Your task to perform on an android device: Toggle the flashlight Image 0: 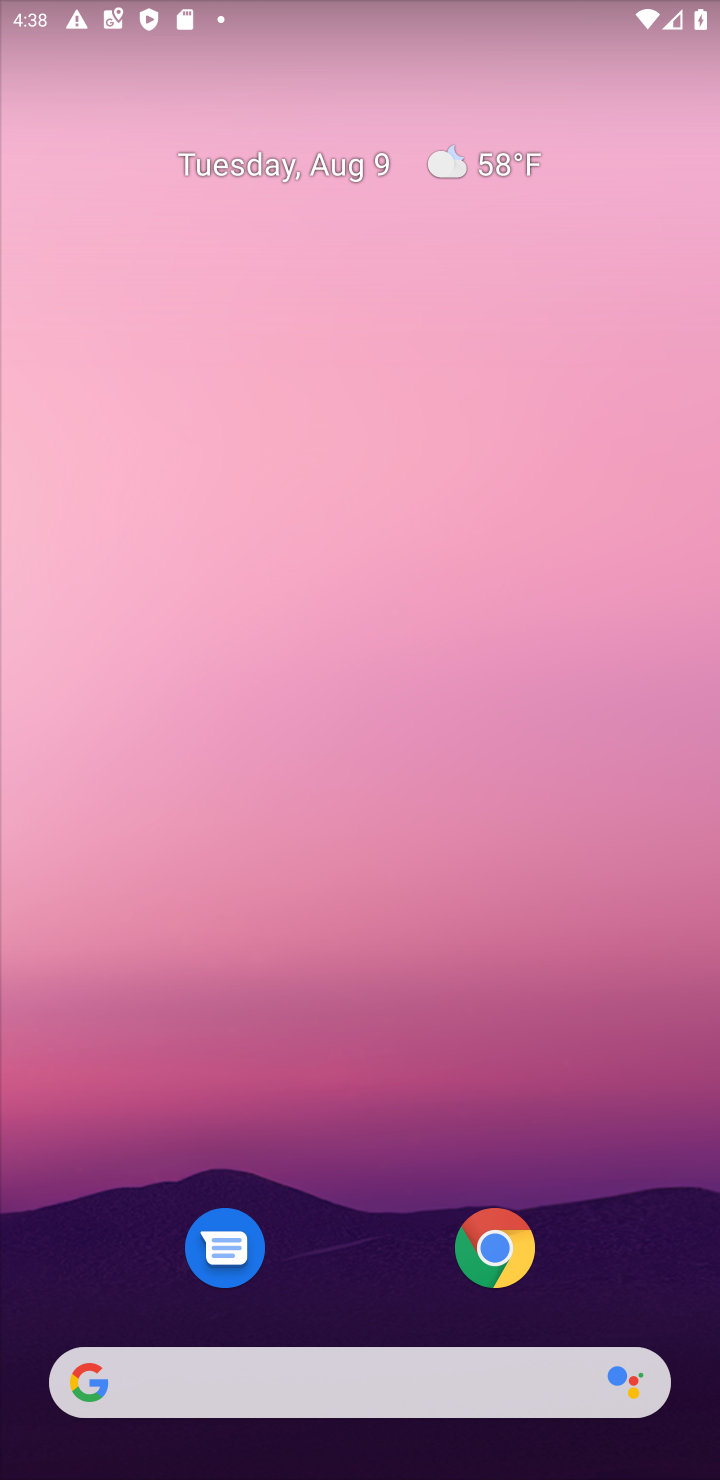
Step 0: drag from (338, 1238) to (198, 274)
Your task to perform on an android device: Toggle the flashlight Image 1: 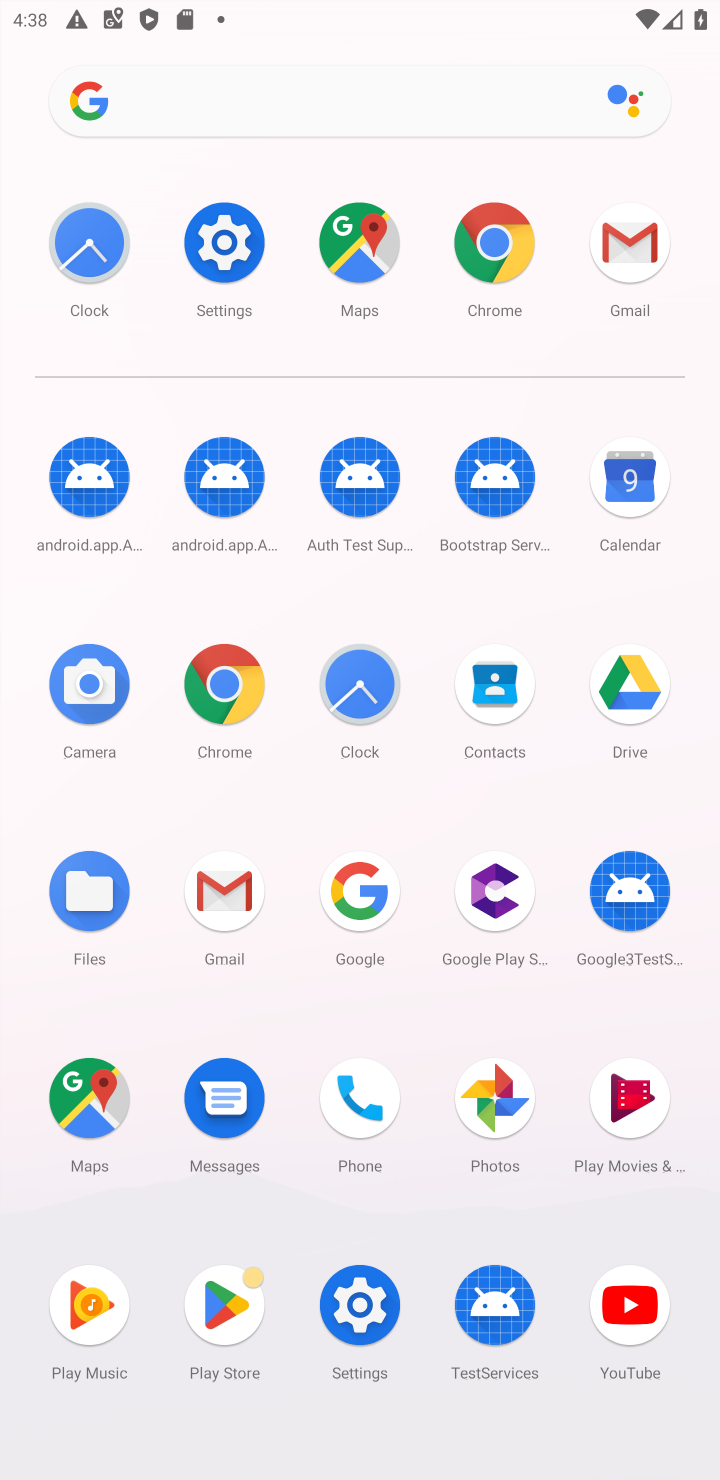
Step 1: click (363, 1294)
Your task to perform on an android device: Toggle the flashlight Image 2: 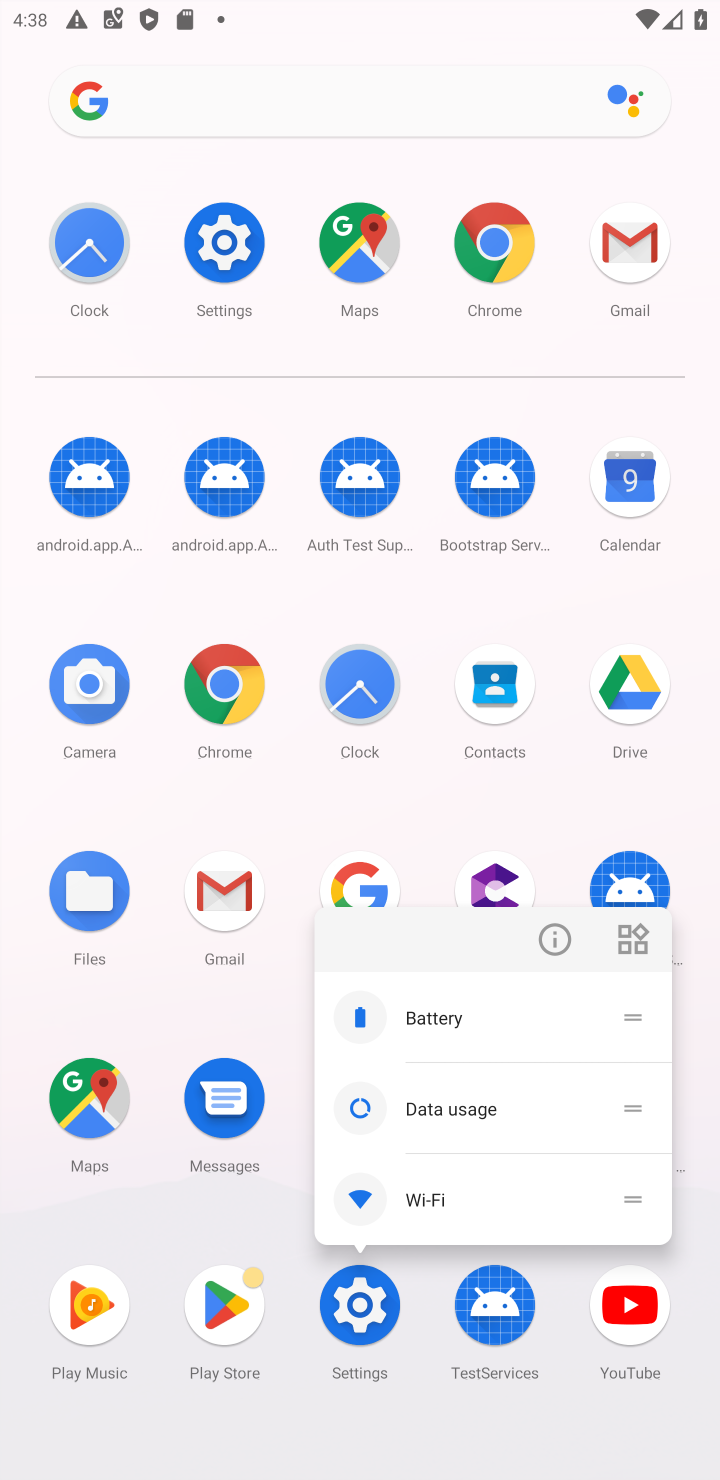
Step 2: click (330, 1289)
Your task to perform on an android device: Toggle the flashlight Image 3: 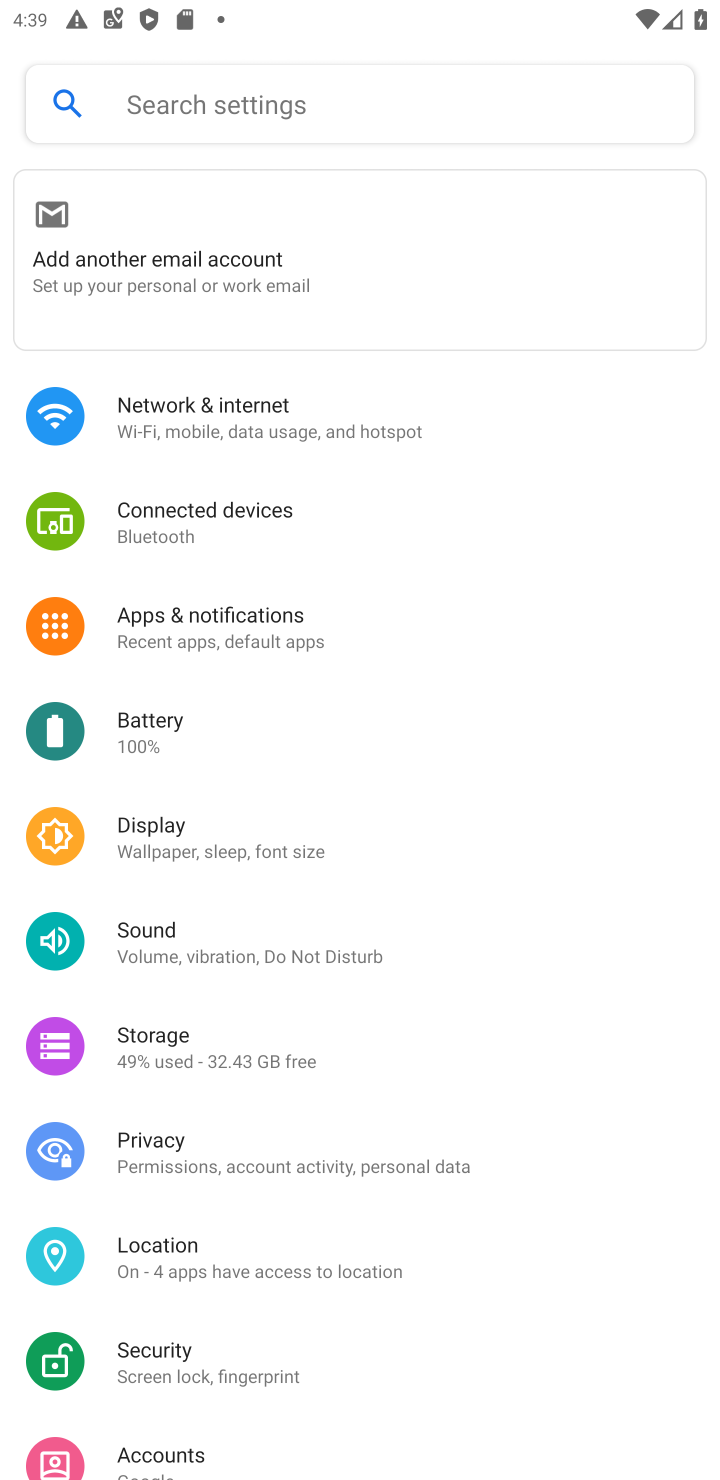
Step 3: click (181, 849)
Your task to perform on an android device: Toggle the flashlight Image 4: 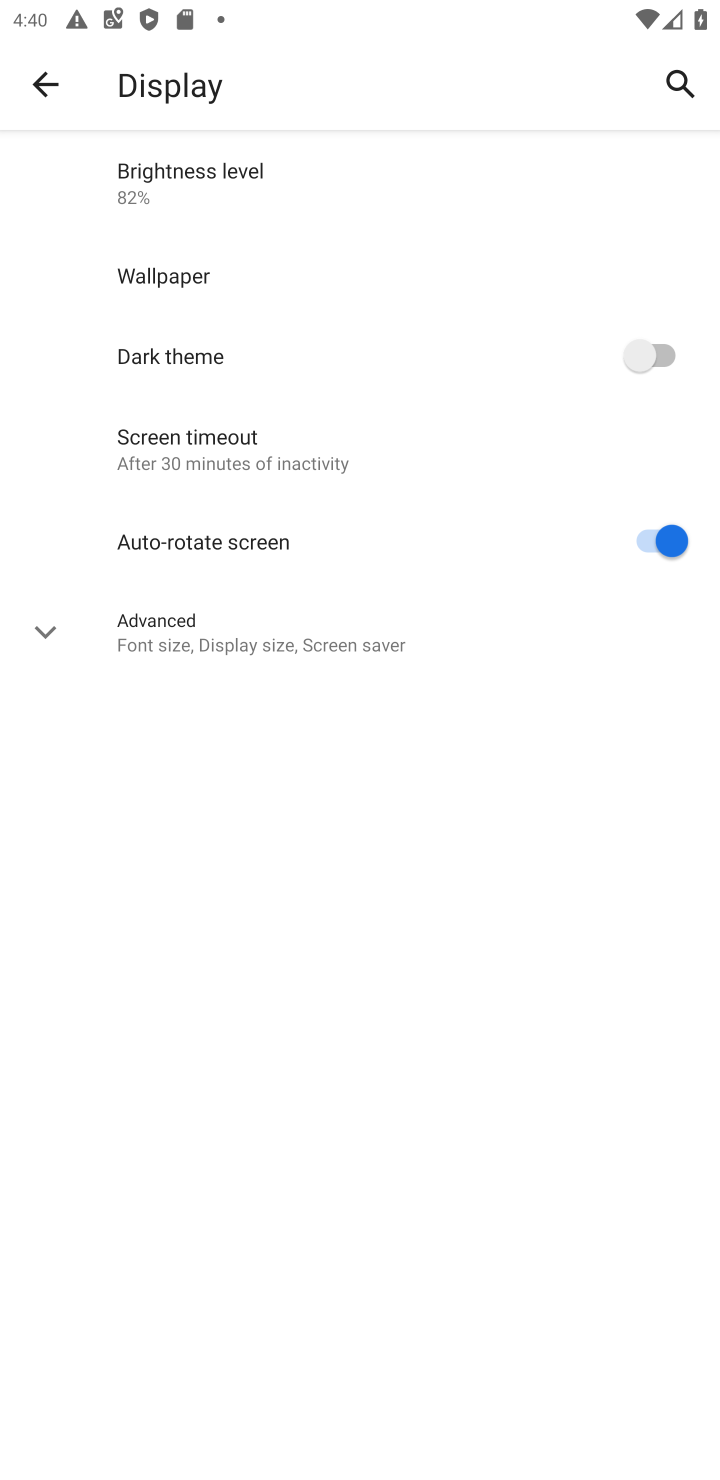
Step 4: click (220, 429)
Your task to perform on an android device: Toggle the flashlight Image 5: 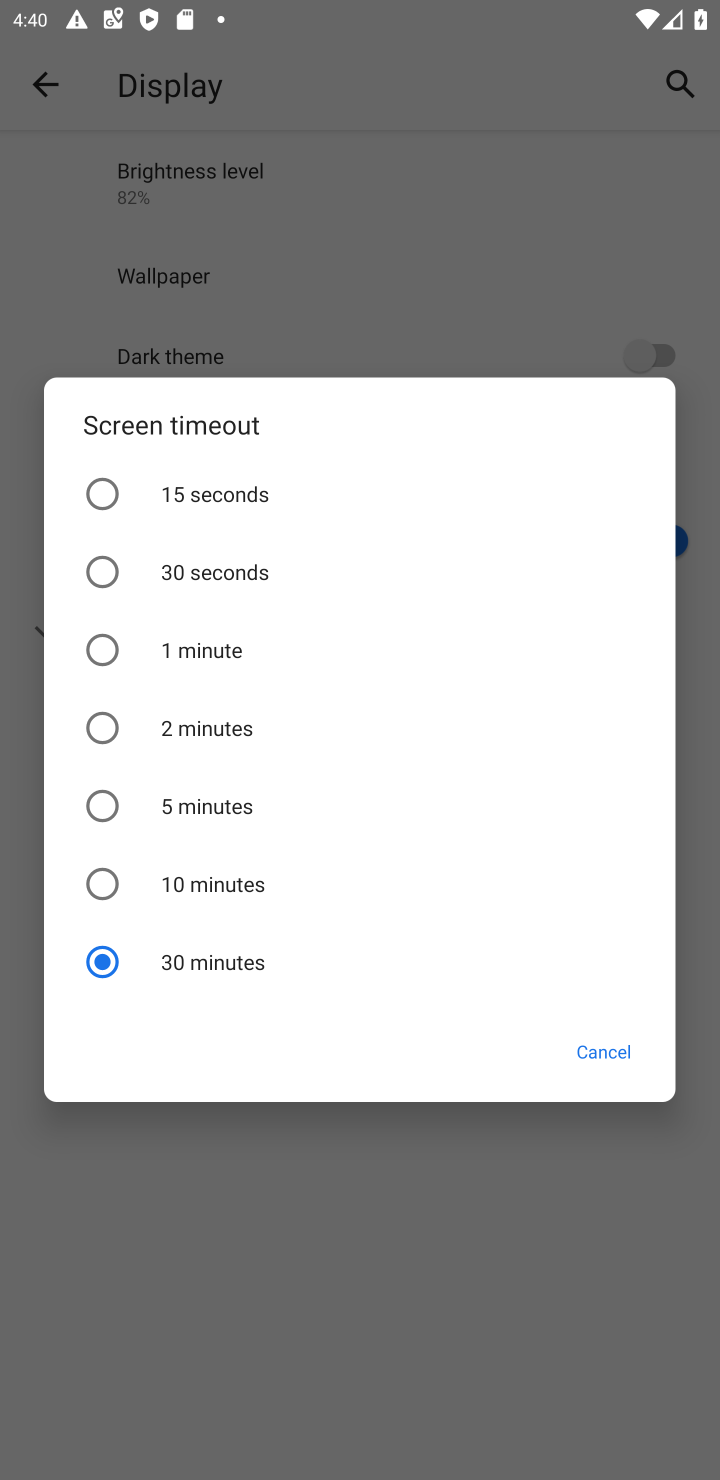
Step 5: task complete